Your task to perform on an android device: Clear the cart on walmart. Image 0: 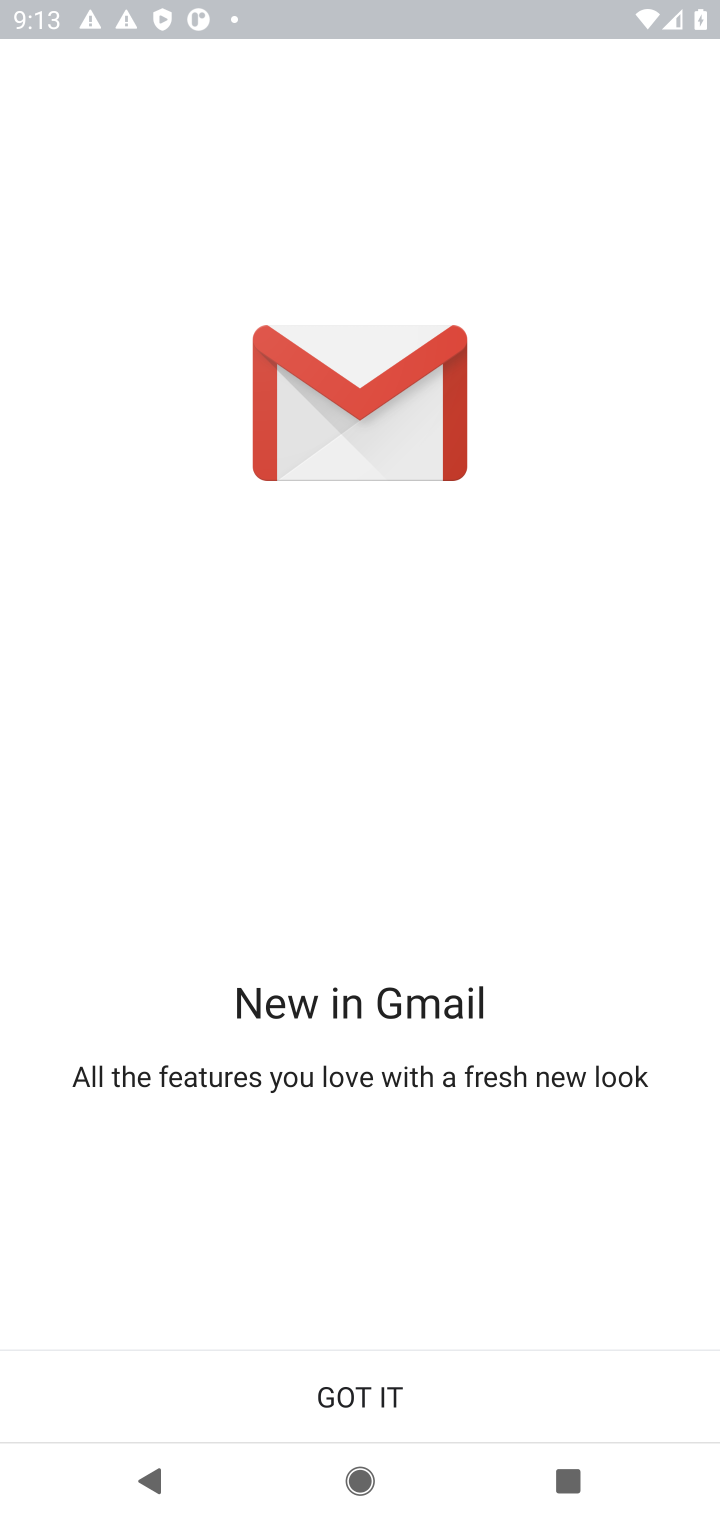
Step 0: press home button
Your task to perform on an android device: Clear the cart on walmart. Image 1: 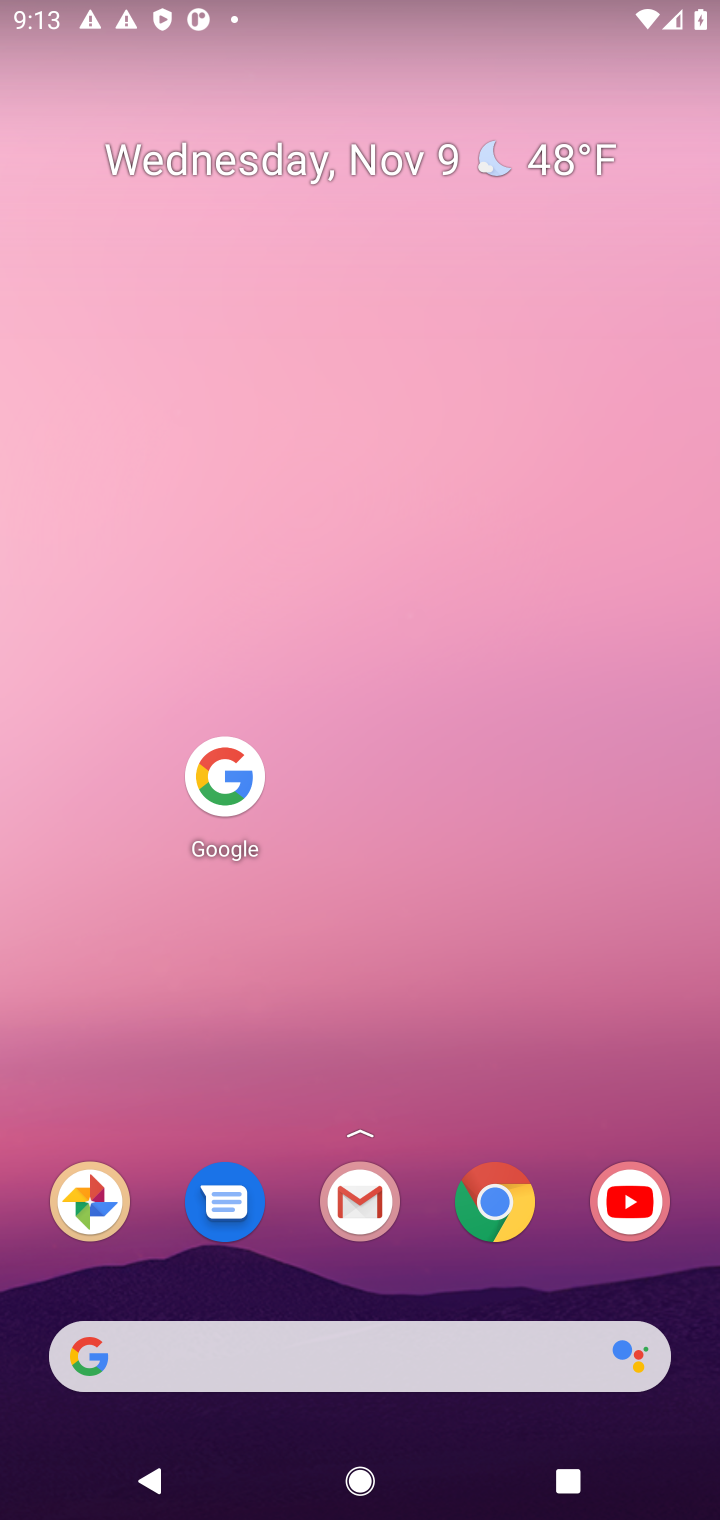
Step 1: click (224, 782)
Your task to perform on an android device: Clear the cart on walmart. Image 2: 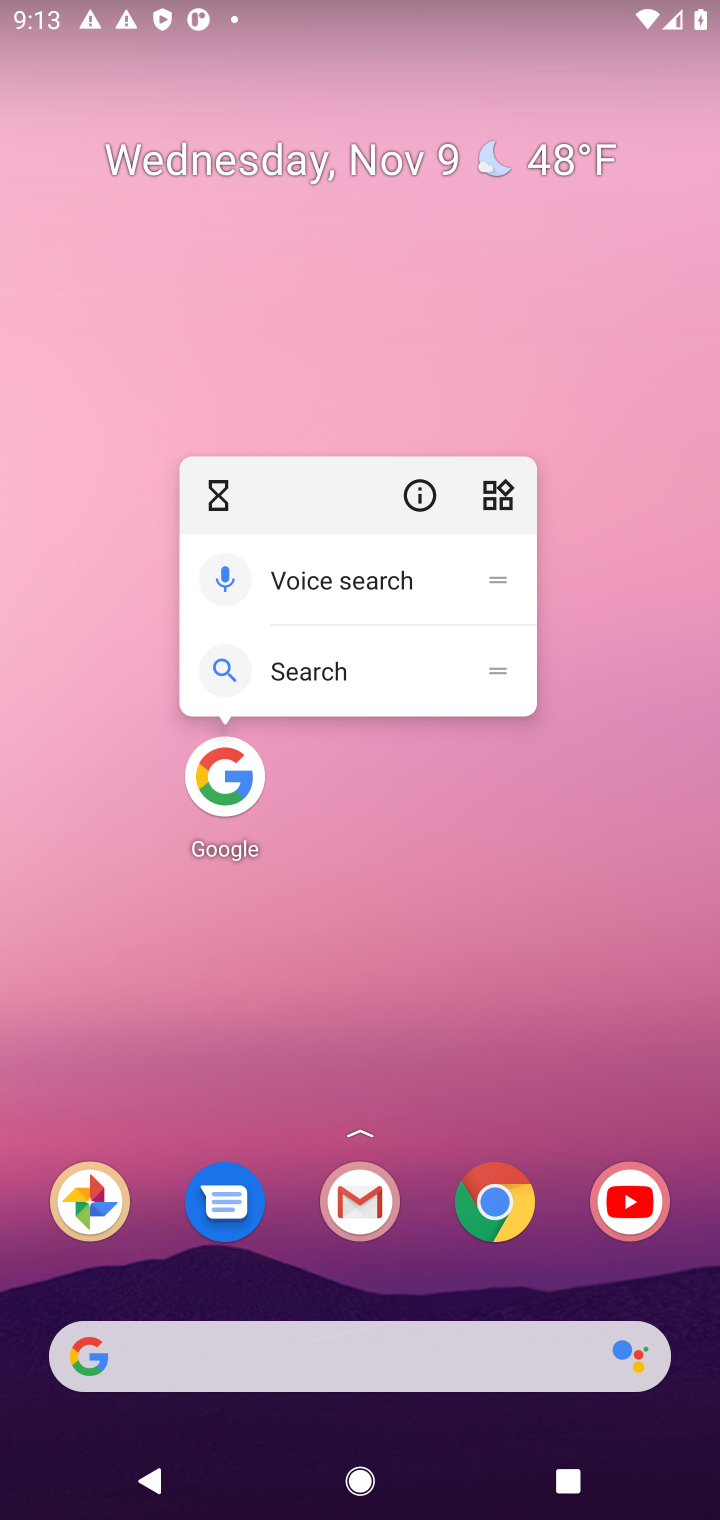
Step 2: click (211, 785)
Your task to perform on an android device: Clear the cart on walmart. Image 3: 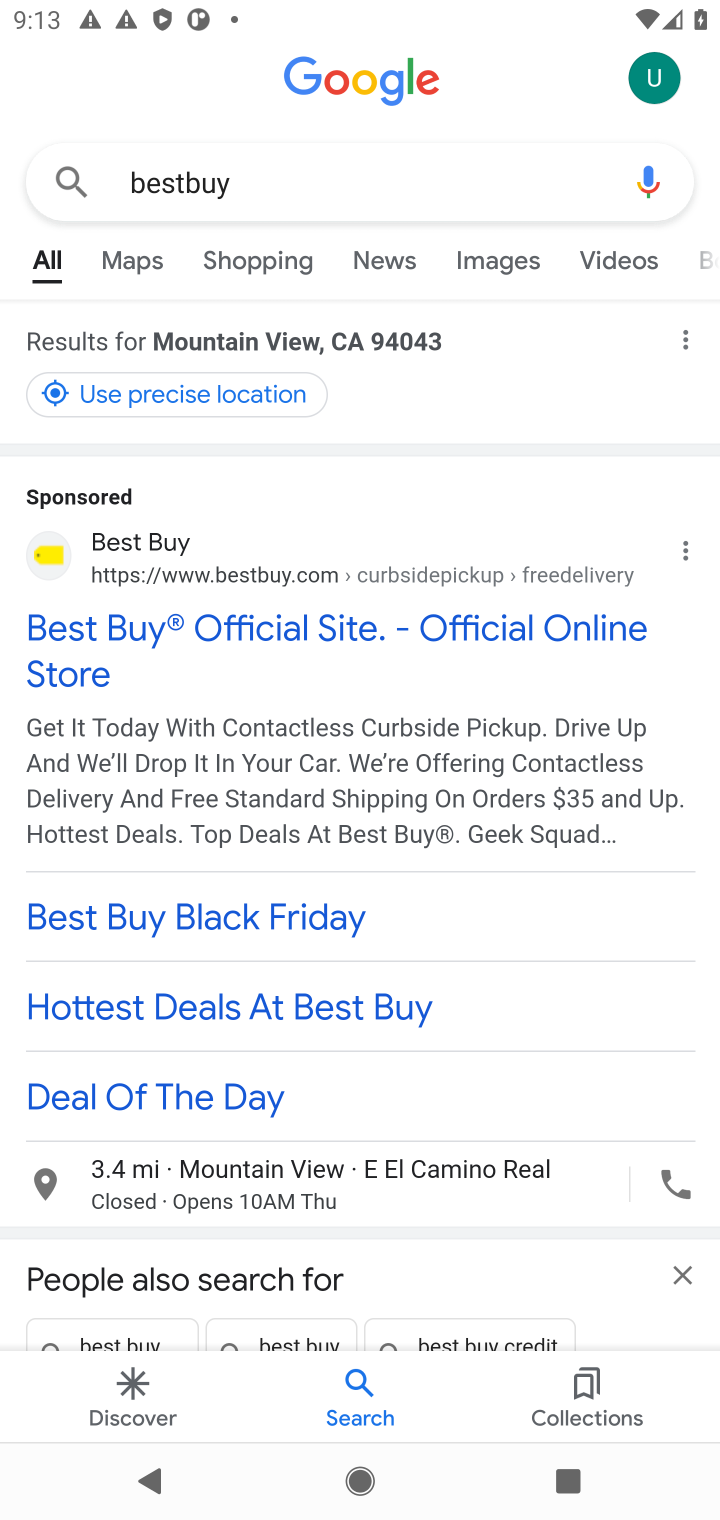
Step 3: click (307, 177)
Your task to perform on an android device: Clear the cart on walmart. Image 4: 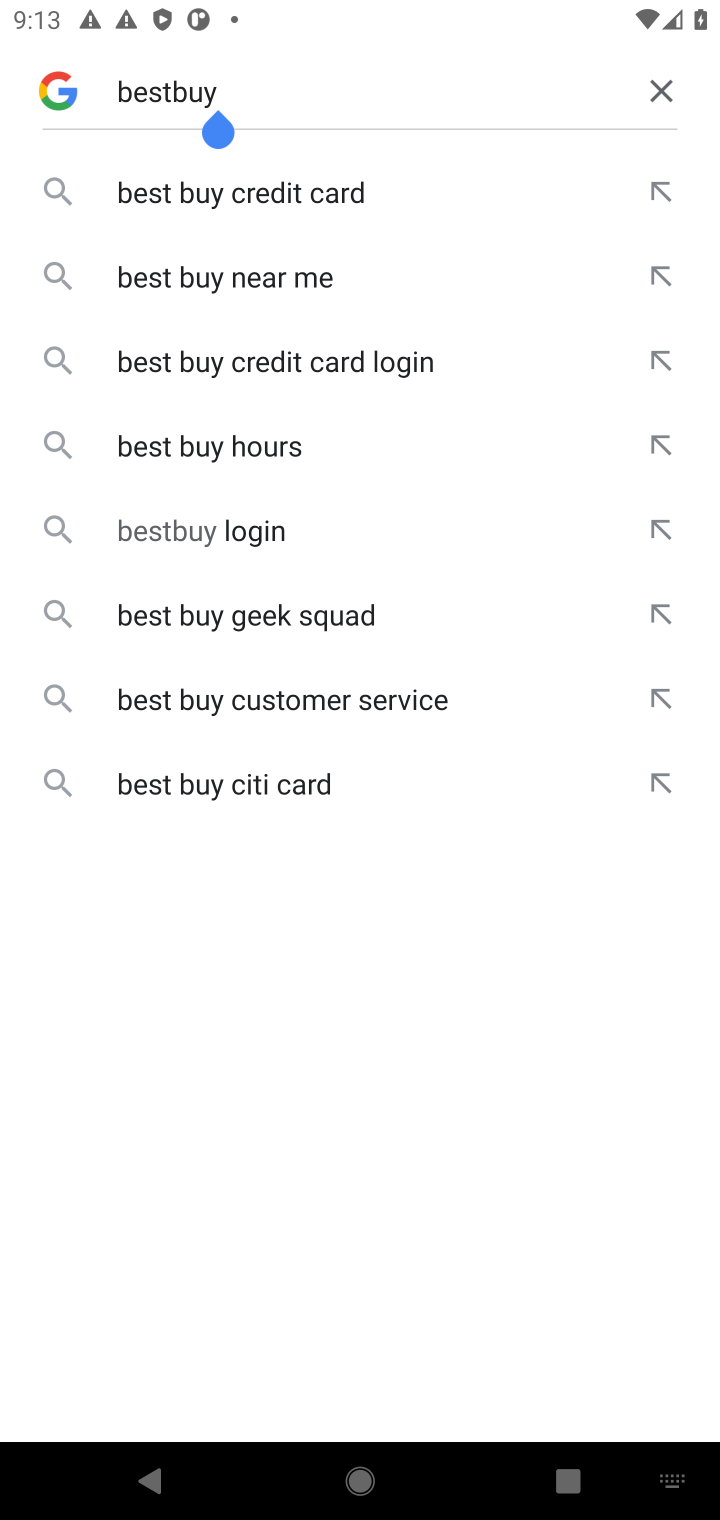
Step 4: click (660, 81)
Your task to perform on an android device: Clear the cart on walmart. Image 5: 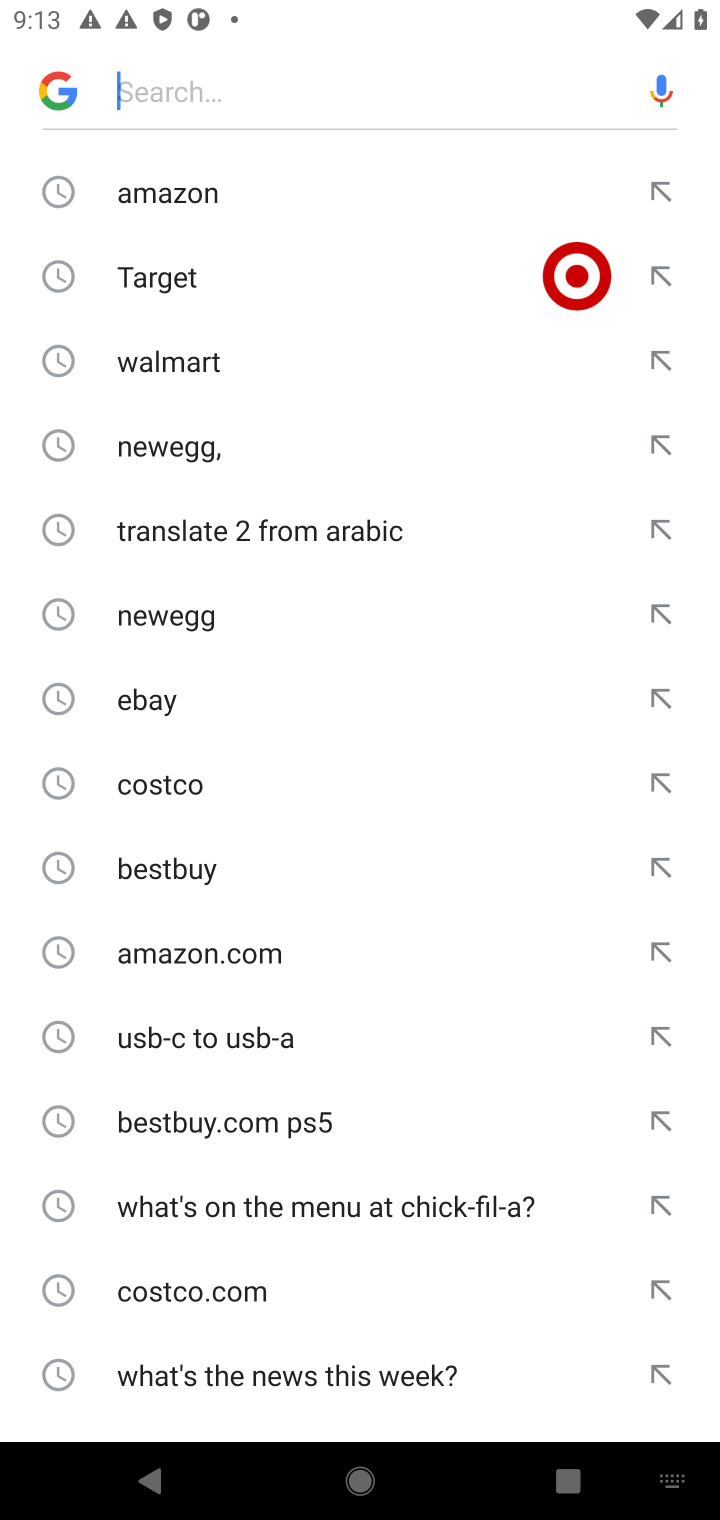
Step 5: click (138, 368)
Your task to perform on an android device: Clear the cart on walmart. Image 6: 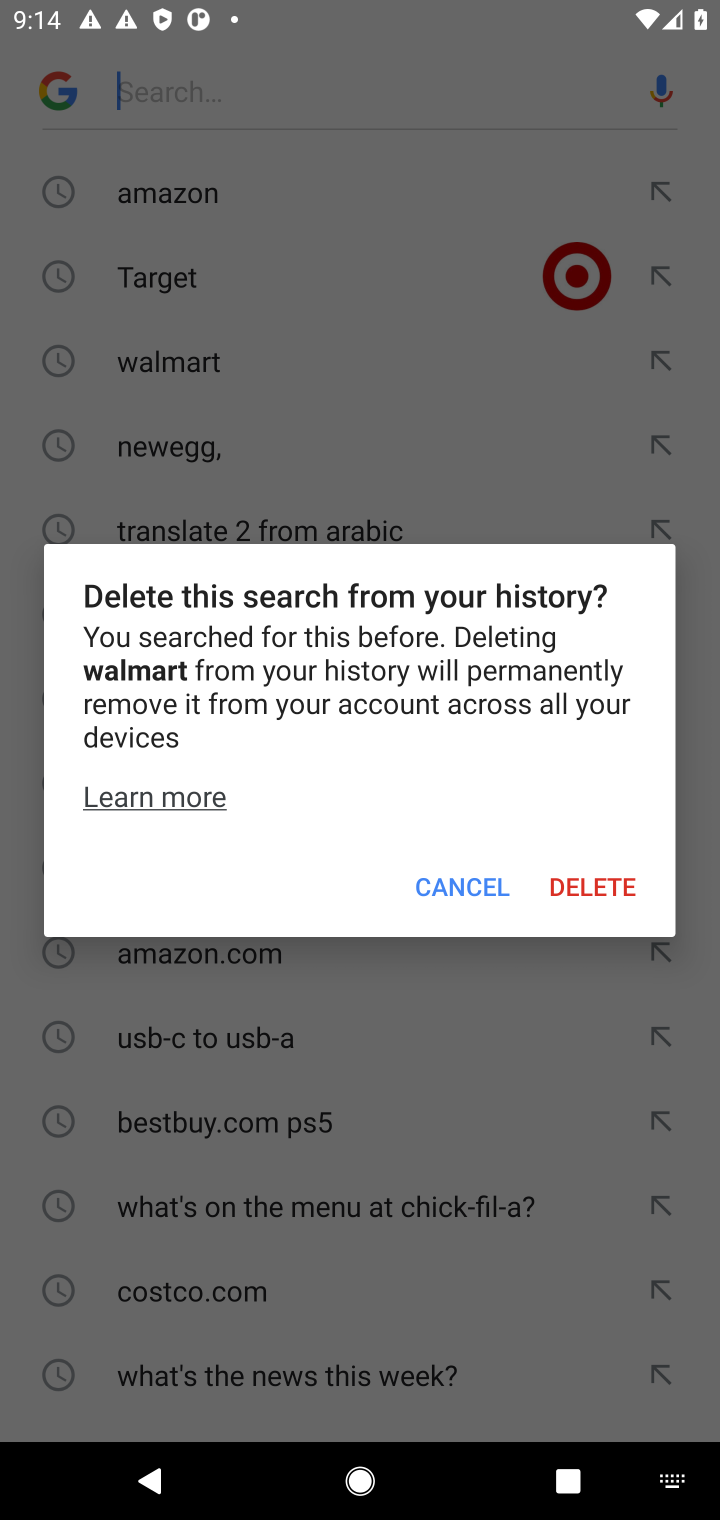
Step 6: click (449, 888)
Your task to perform on an android device: Clear the cart on walmart. Image 7: 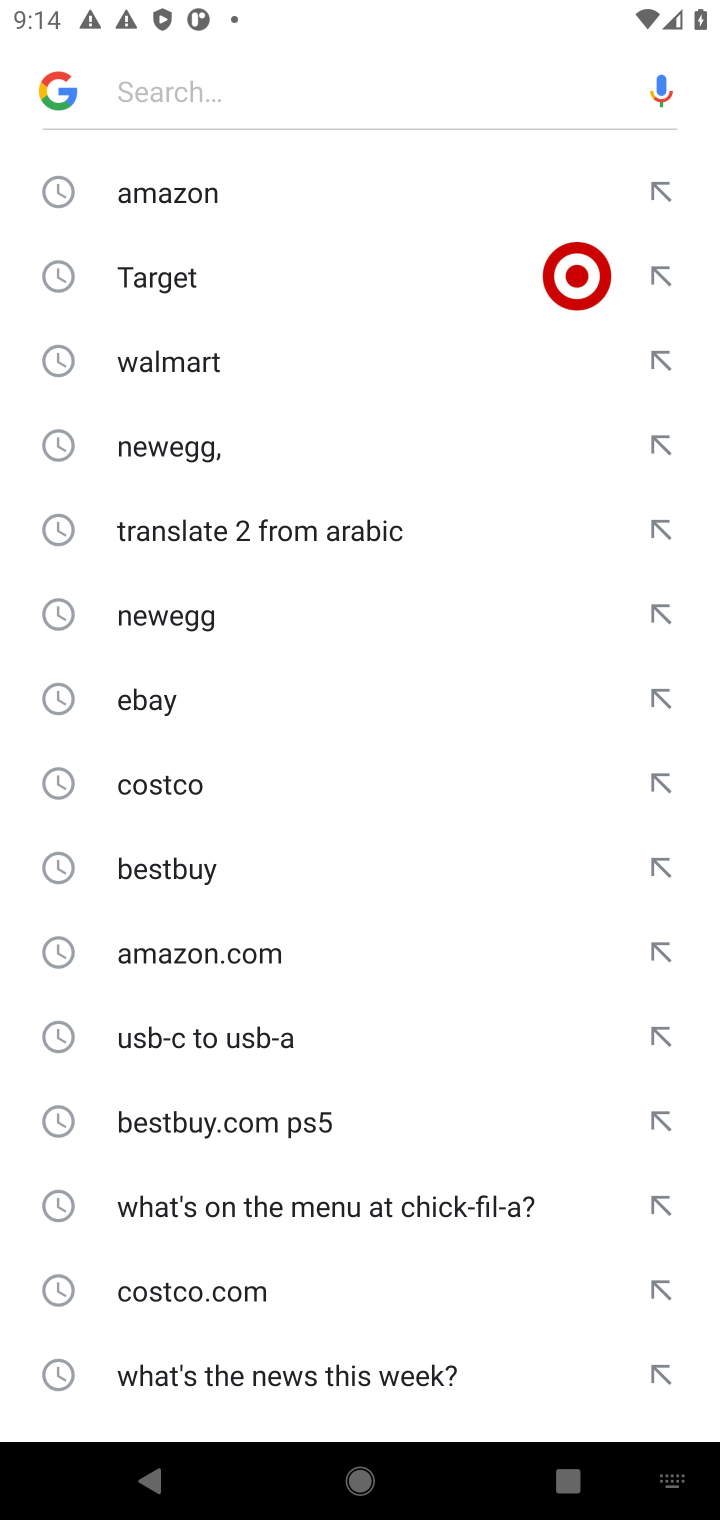
Step 7: click (167, 359)
Your task to perform on an android device: Clear the cart on walmart. Image 8: 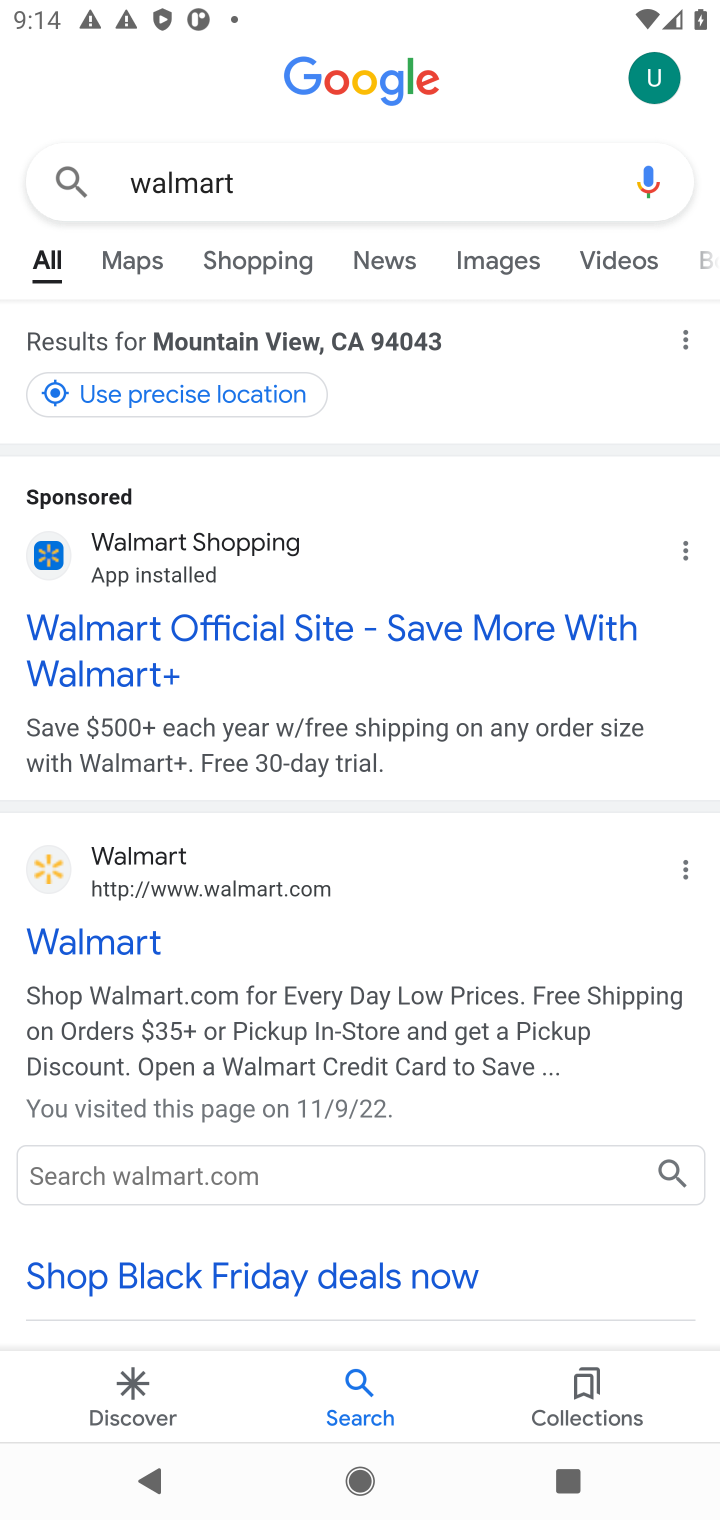
Step 8: drag from (212, 881) to (324, 261)
Your task to perform on an android device: Clear the cart on walmart. Image 9: 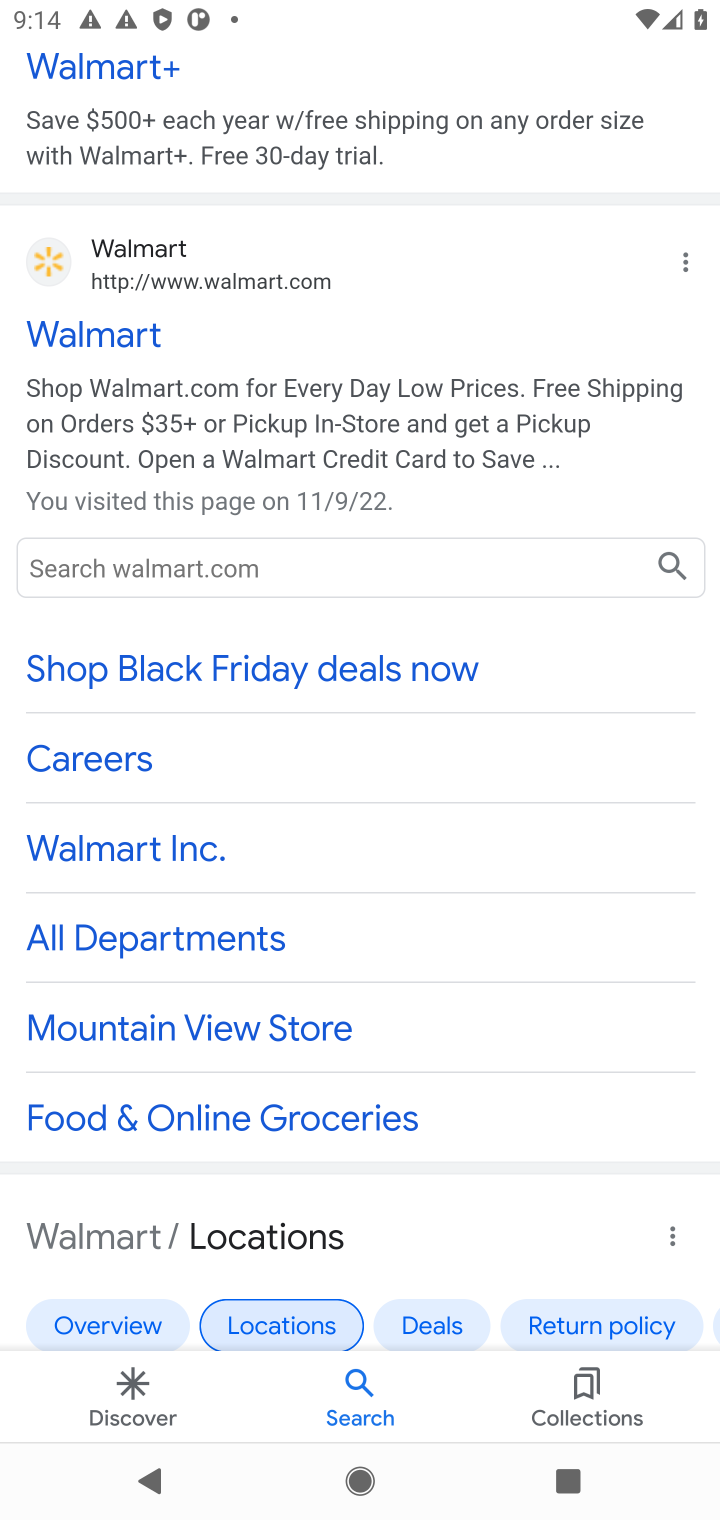
Step 9: drag from (261, 1104) to (319, 346)
Your task to perform on an android device: Clear the cart on walmart. Image 10: 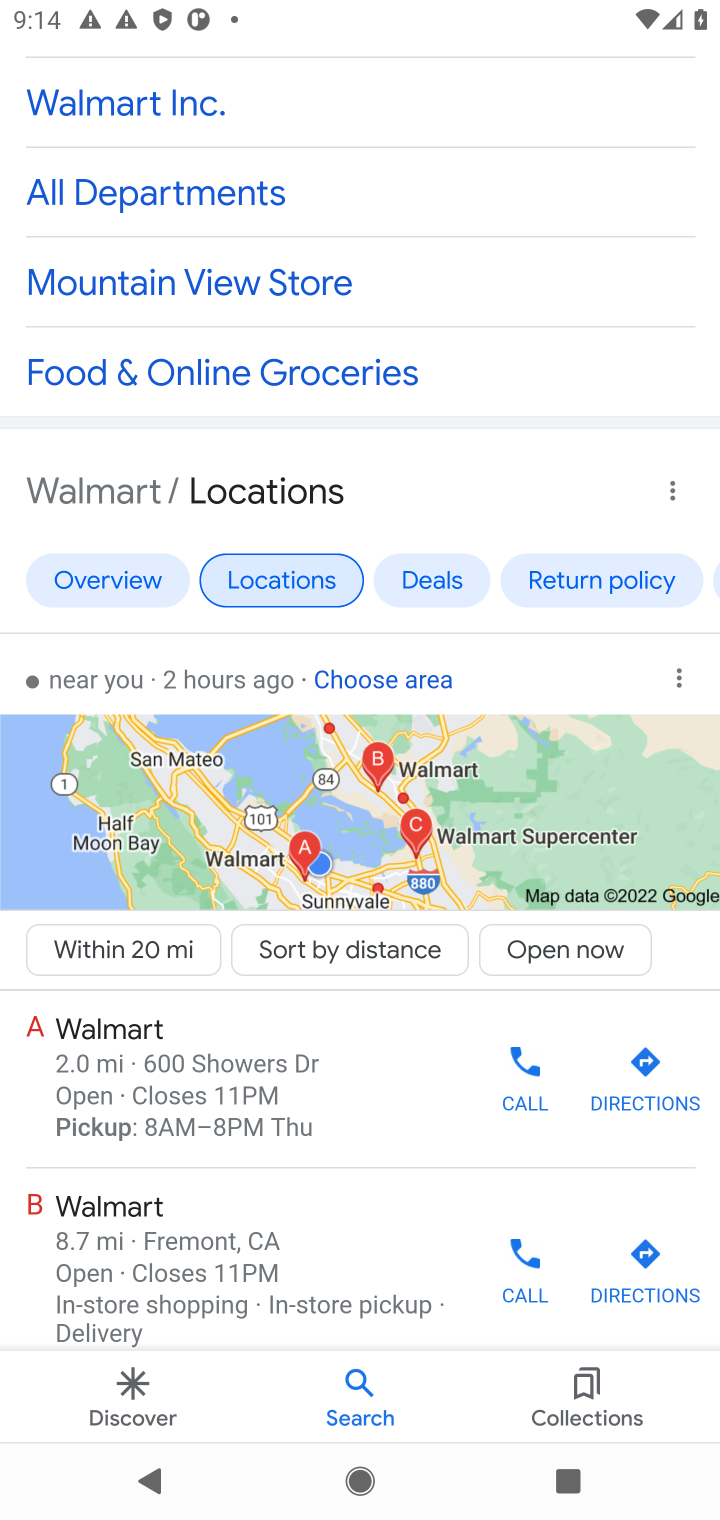
Step 10: drag from (234, 1247) to (305, 292)
Your task to perform on an android device: Clear the cart on walmart. Image 11: 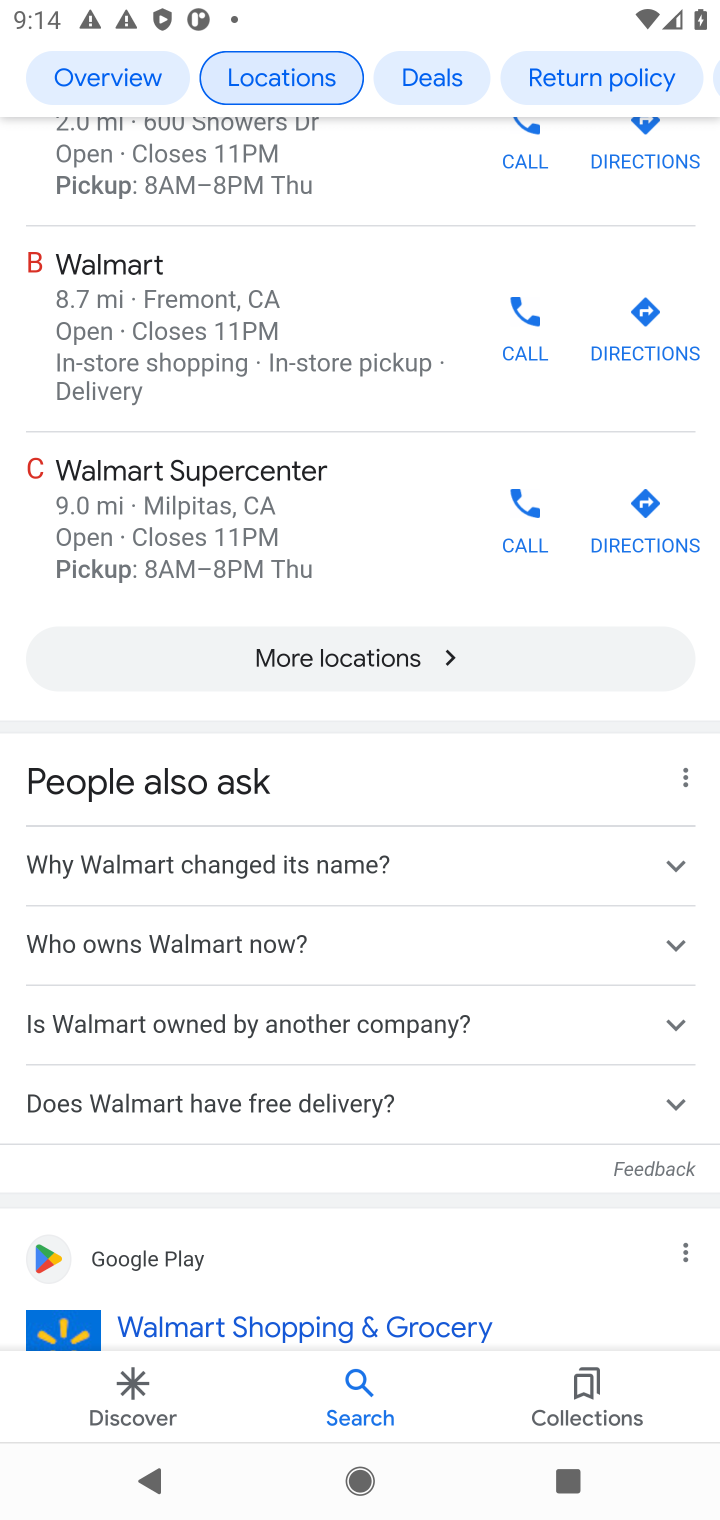
Step 11: drag from (212, 1202) to (285, 640)
Your task to perform on an android device: Clear the cart on walmart. Image 12: 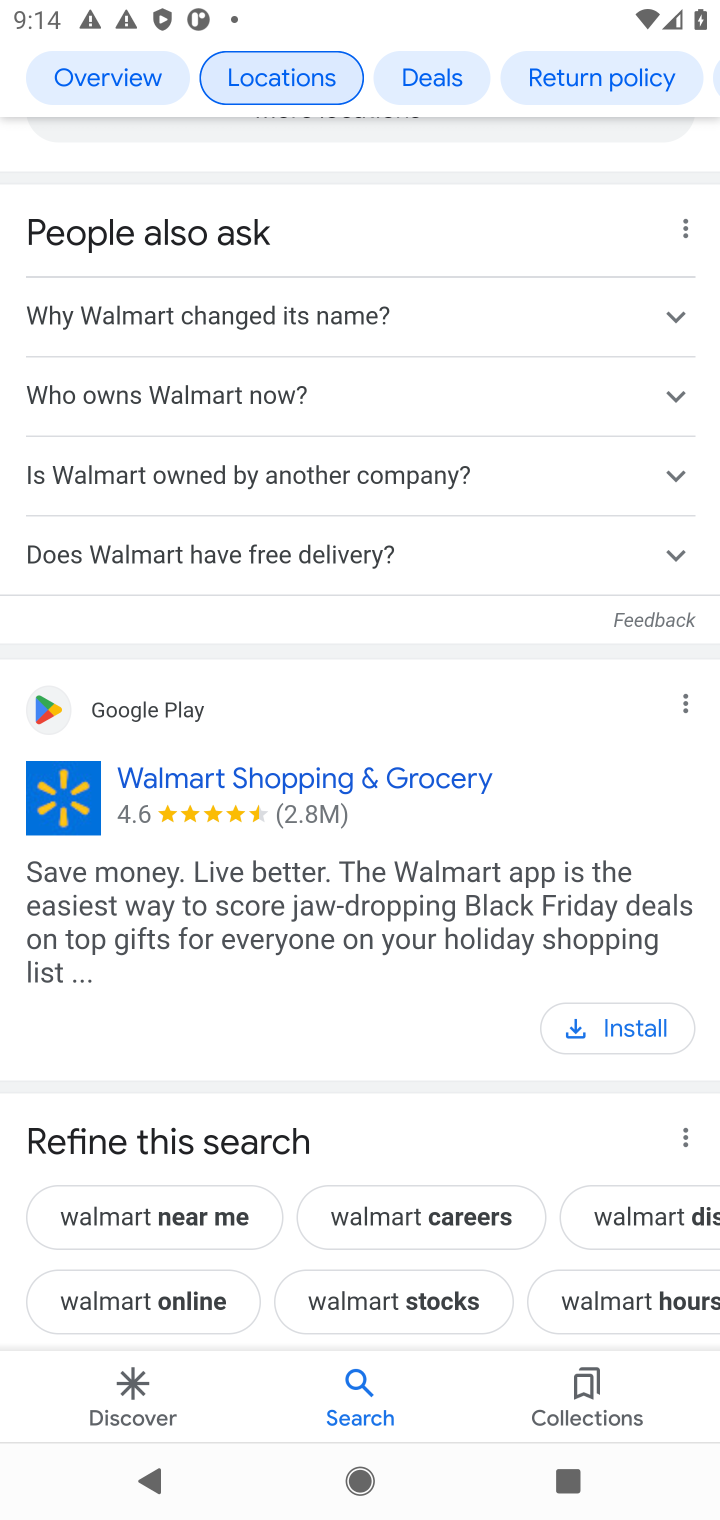
Step 12: drag from (248, 1183) to (395, 322)
Your task to perform on an android device: Clear the cart on walmart. Image 13: 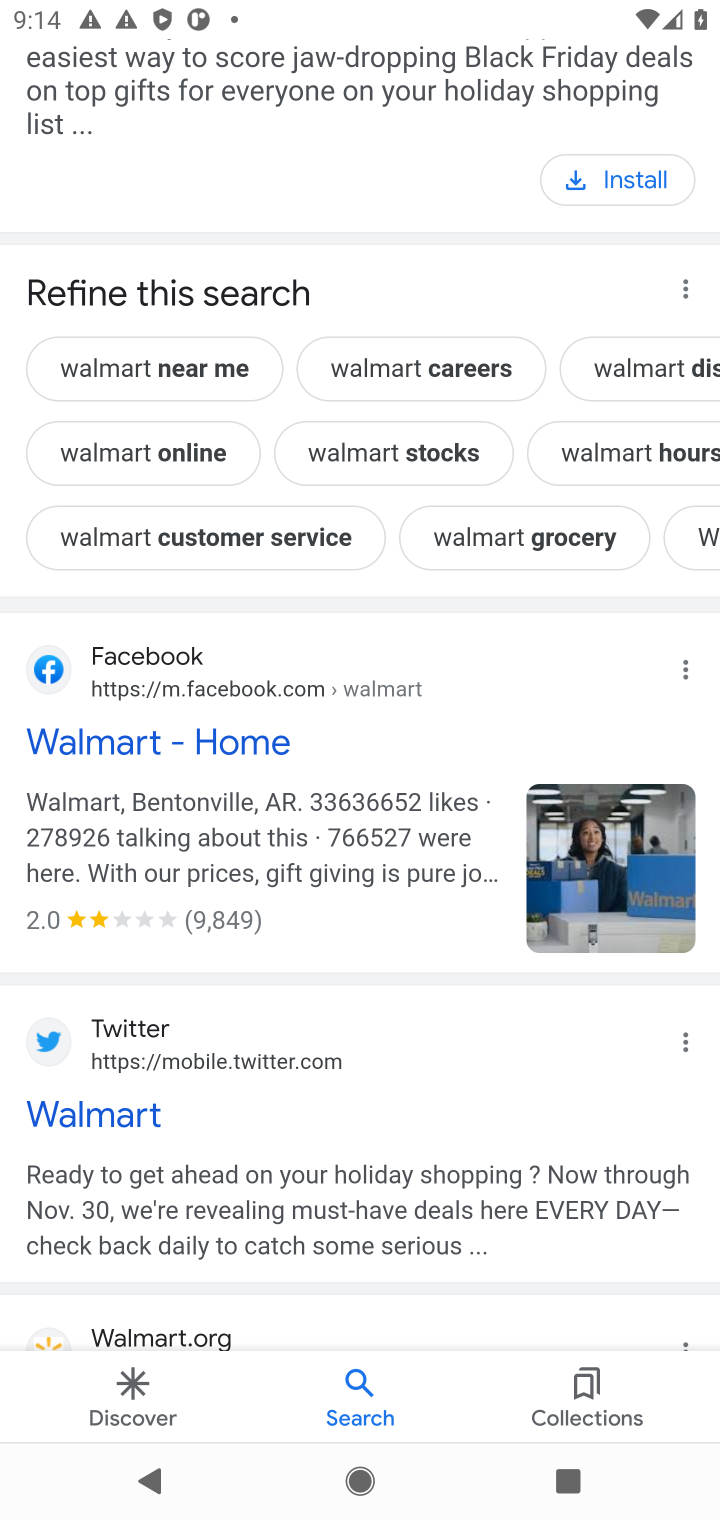
Step 13: drag from (416, 270) to (414, 1120)
Your task to perform on an android device: Clear the cart on walmart. Image 14: 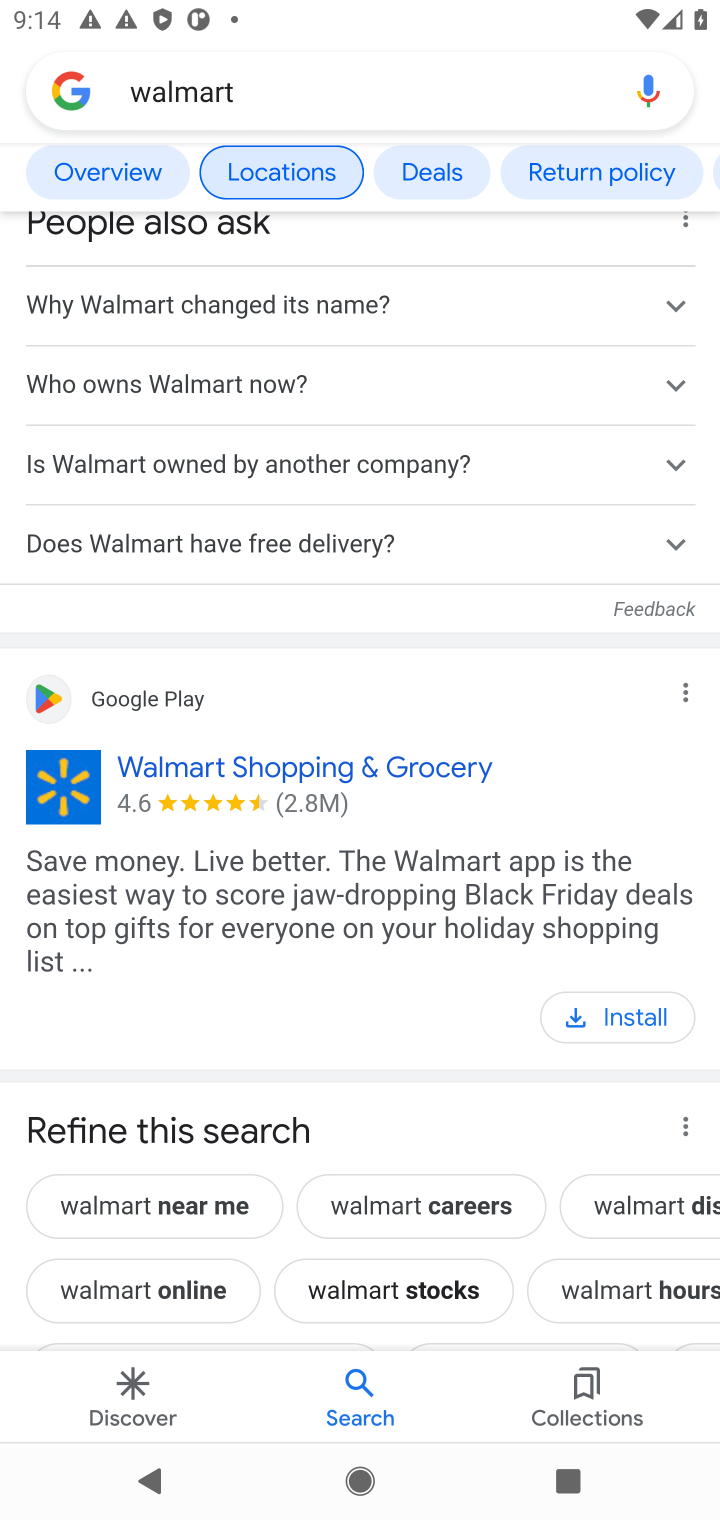
Step 14: drag from (422, 313) to (393, 1264)
Your task to perform on an android device: Clear the cart on walmart. Image 15: 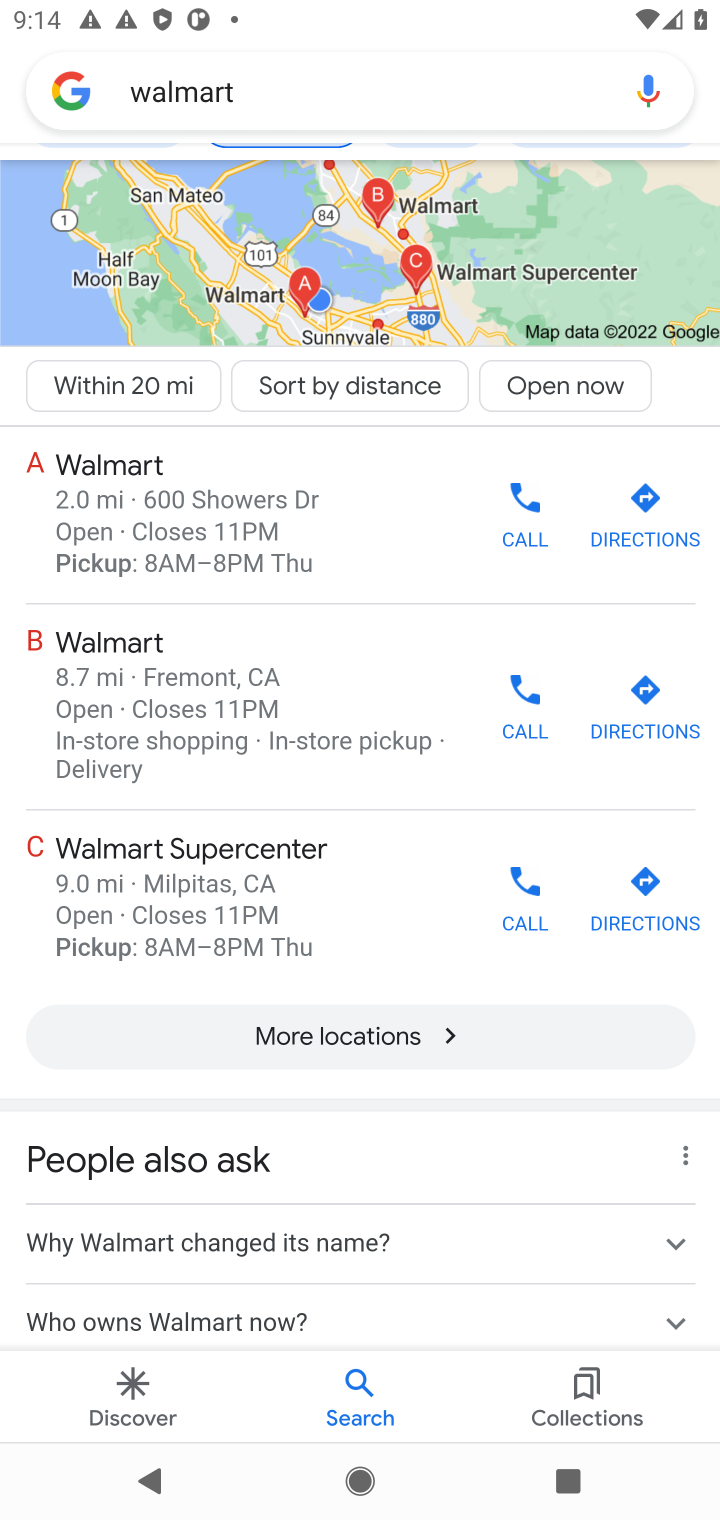
Step 15: drag from (294, 330) to (344, 1155)
Your task to perform on an android device: Clear the cart on walmart. Image 16: 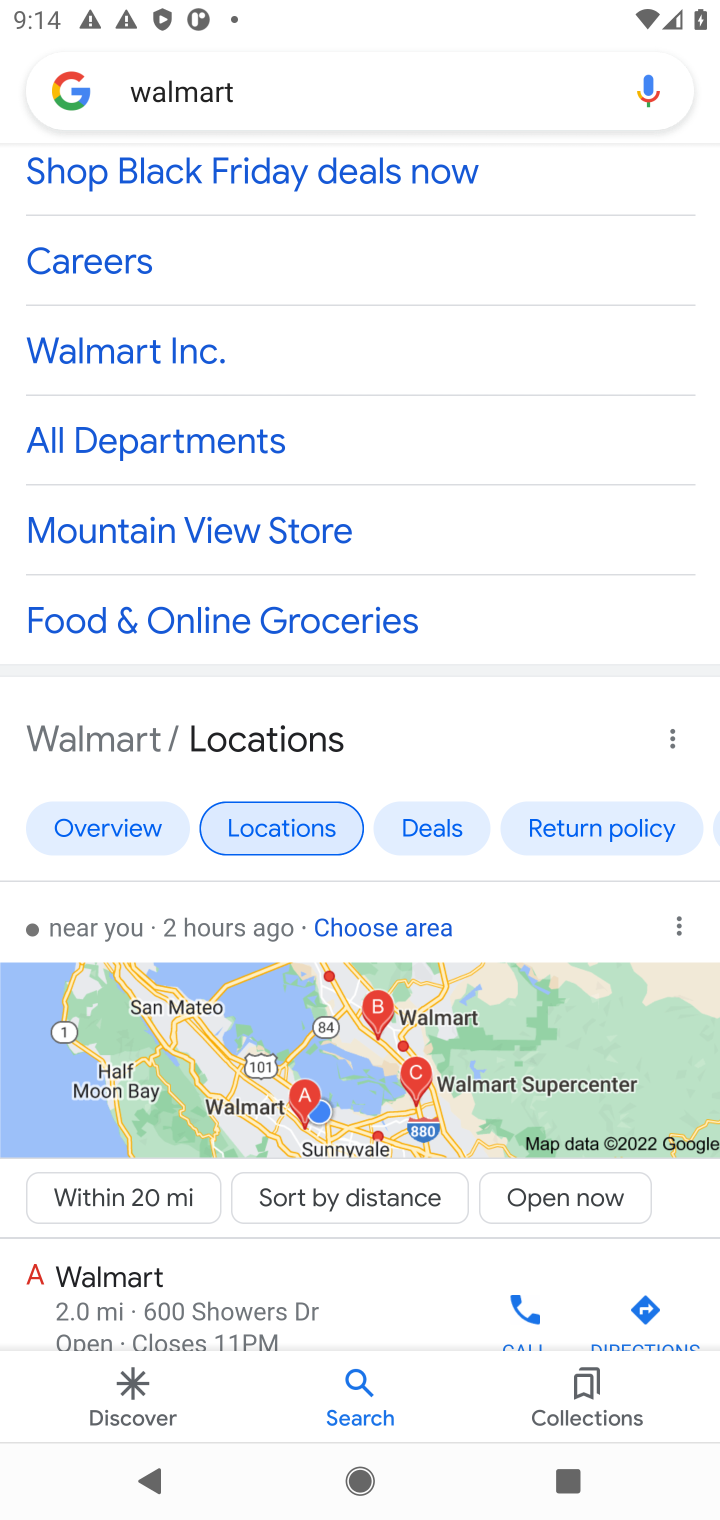
Step 16: drag from (438, 306) to (417, 1047)
Your task to perform on an android device: Clear the cart on walmart. Image 17: 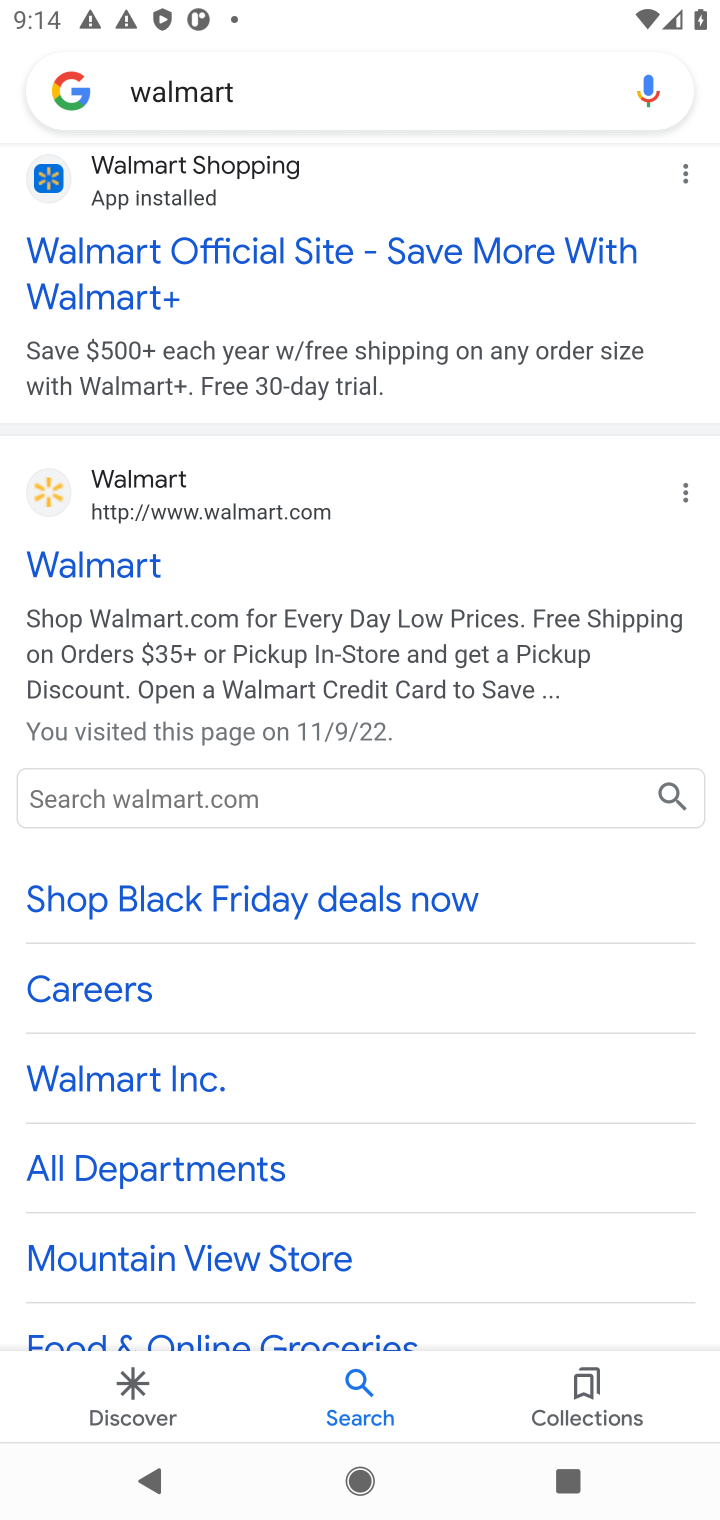
Step 17: click (108, 559)
Your task to perform on an android device: Clear the cart on walmart. Image 18: 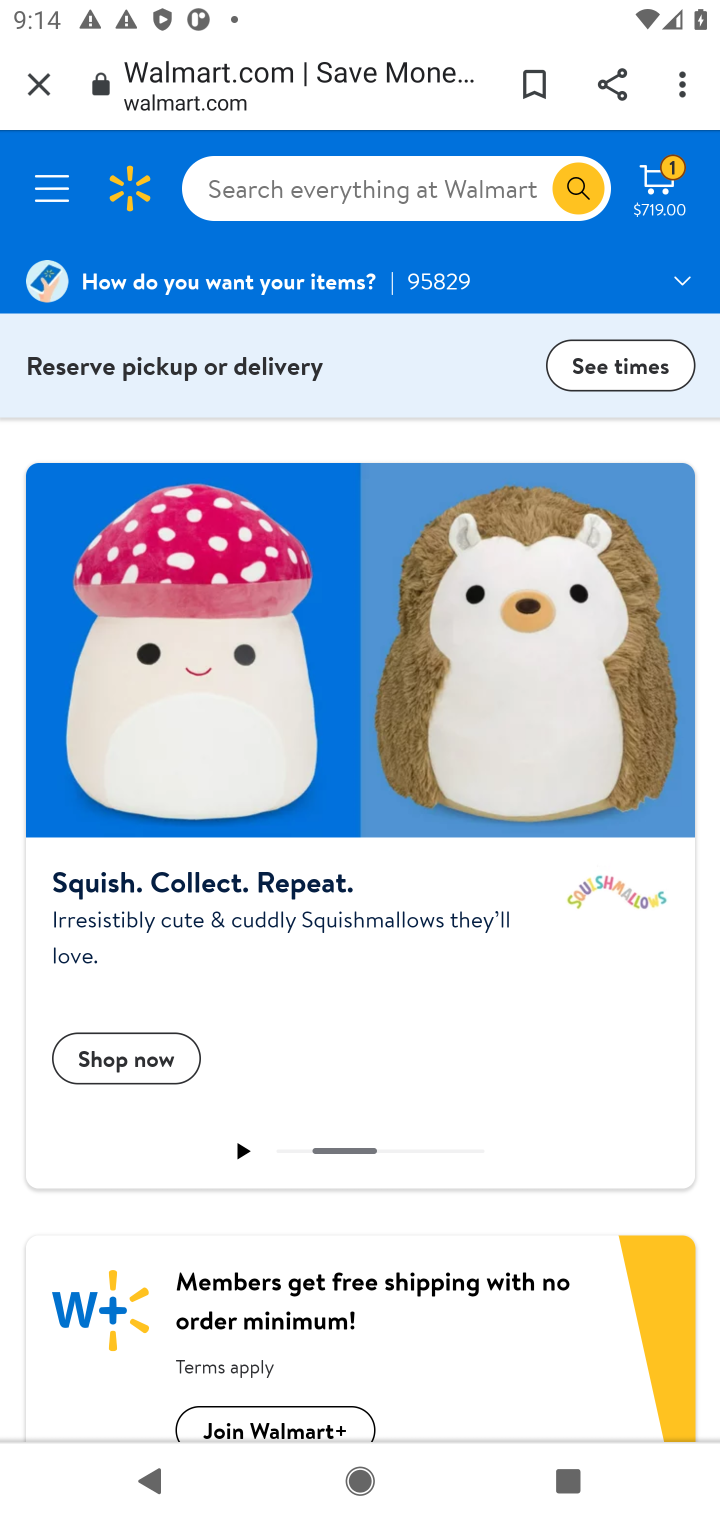
Step 18: click (662, 178)
Your task to perform on an android device: Clear the cart on walmart. Image 19: 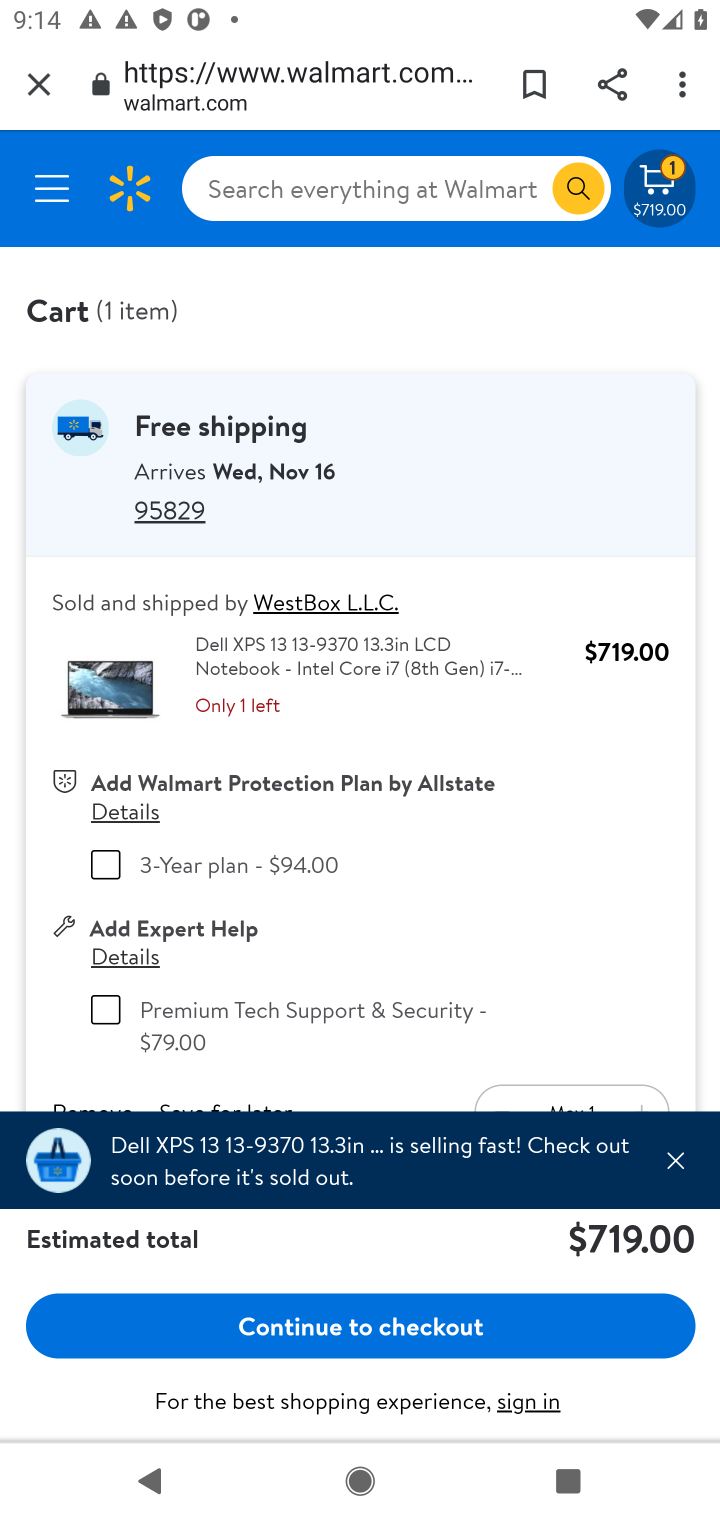
Step 19: drag from (457, 825) to (489, 322)
Your task to perform on an android device: Clear the cart on walmart. Image 20: 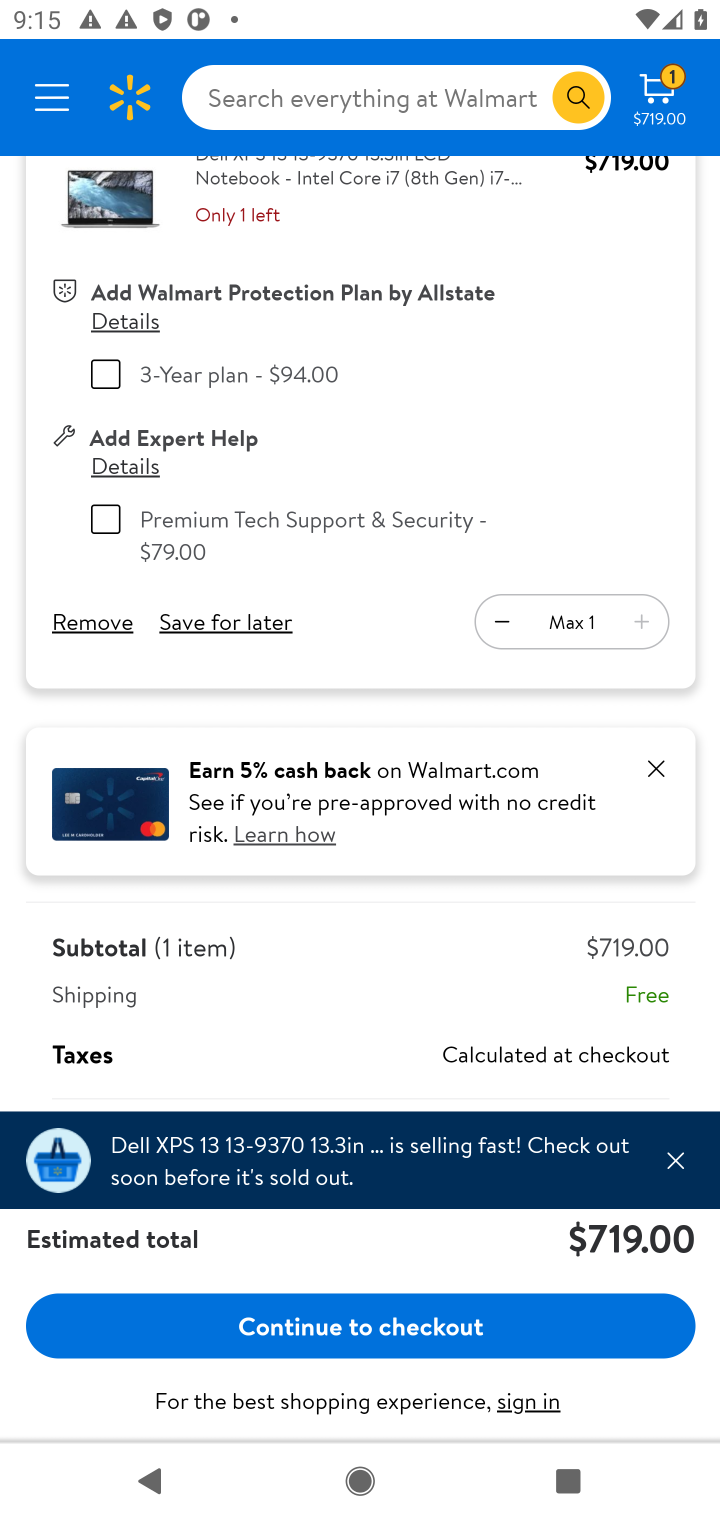
Step 20: click (104, 621)
Your task to perform on an android device: Clear the cart on walmart. Image 21: 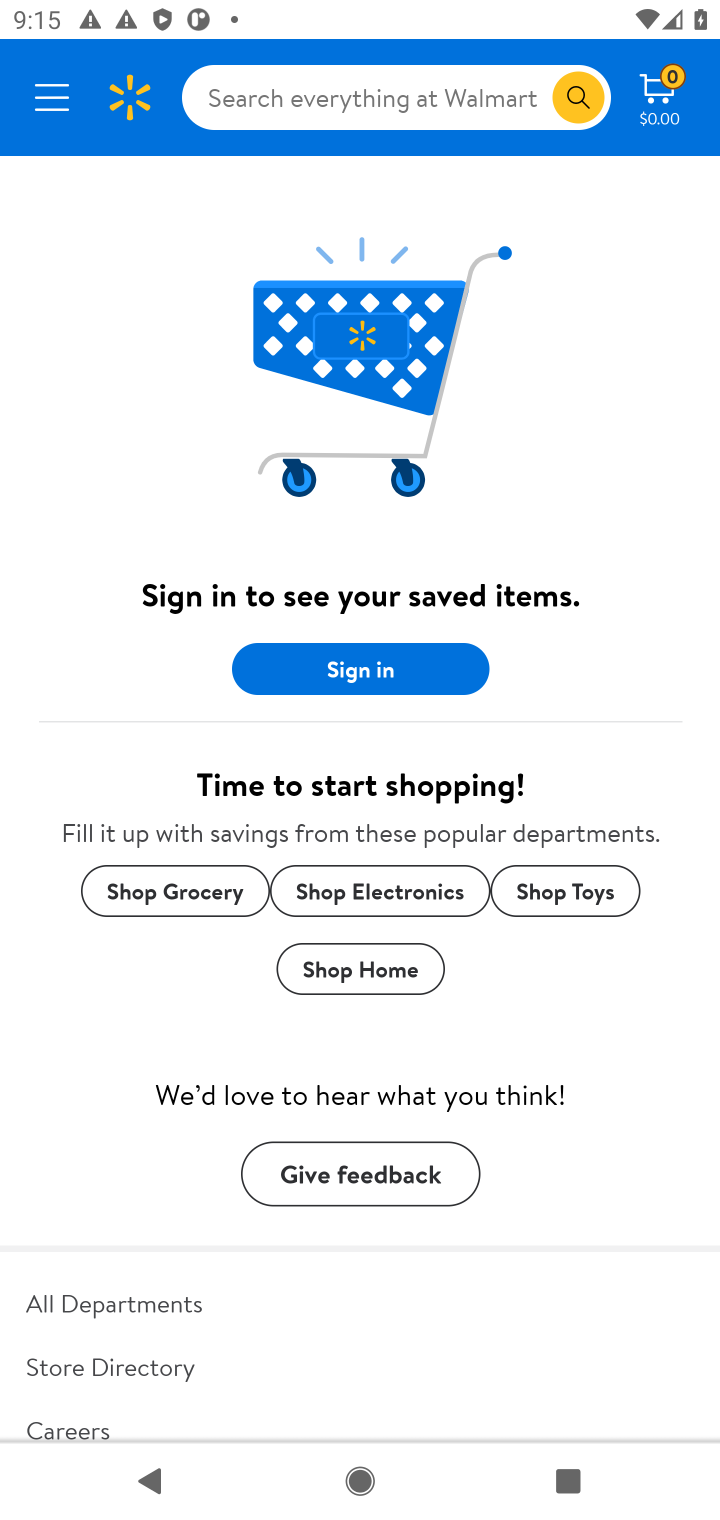
Step 21: task complete